Your task to perform on an android device: Open CNN.com Image 0: 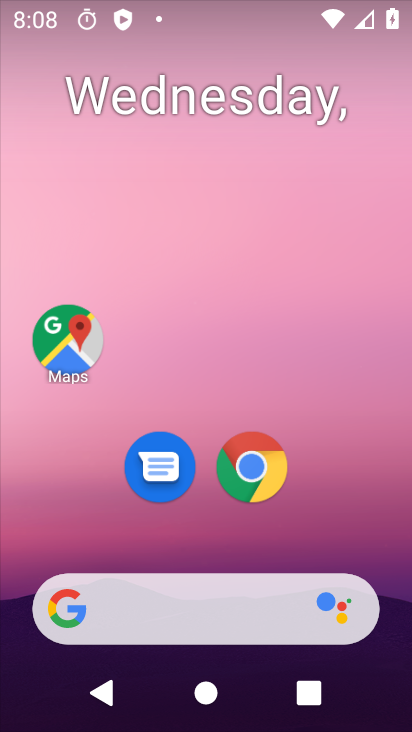
Step 0: click (240, 469)
Your task to perform on an android device: Open CNN.com Image 1: 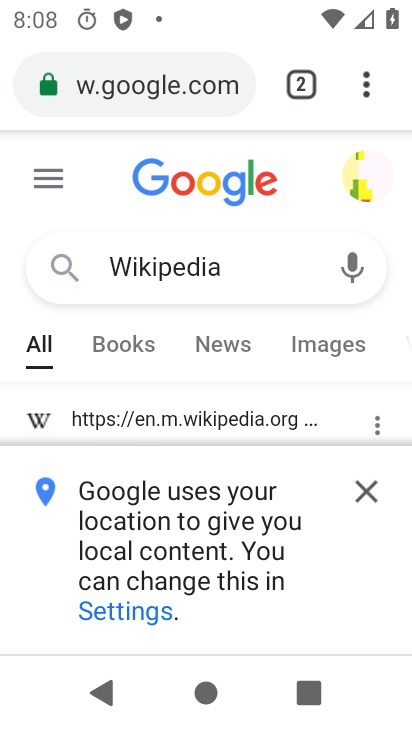
Step 1: click (231, 271)
Your task to perform on an android device: Open CNN.com Image 2: 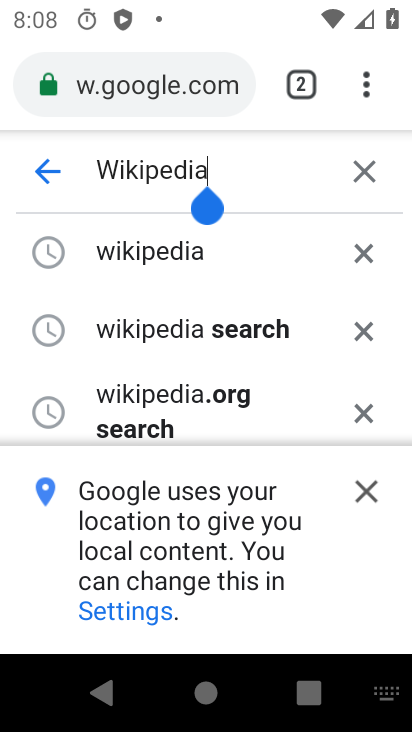
Step 2: click (361, 160)
Your task to perform on an android device: Open CNN.com Image 3: 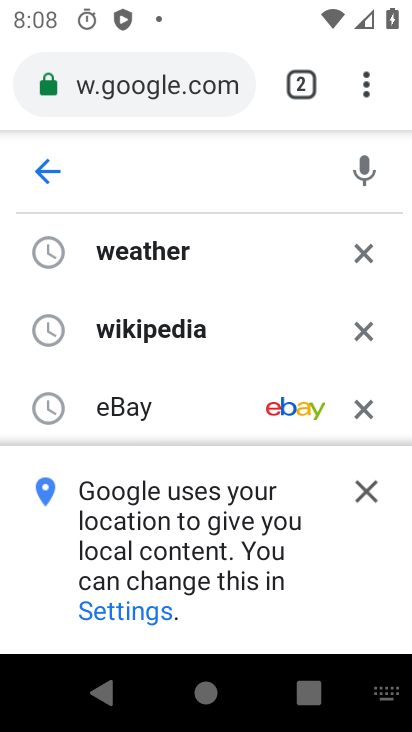
Step 3: type "CNN.com"
Your task to perform on an android device: Open CNN.com Image 4: 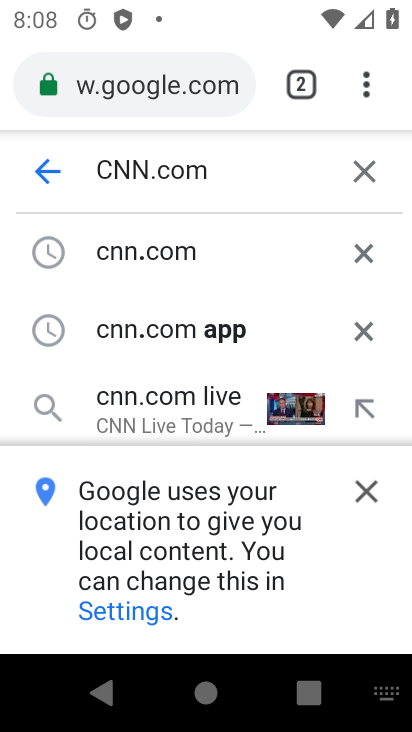
Step 4: click (126, 166)
Your task to perform on an android device: Open CNN.com Image 5: 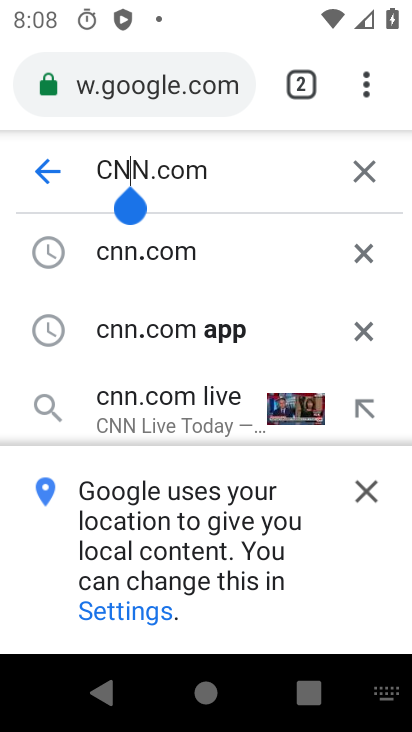
Step 5: click (222, 178)
Your task to perform on an android device: Open CNN.com Image 6: 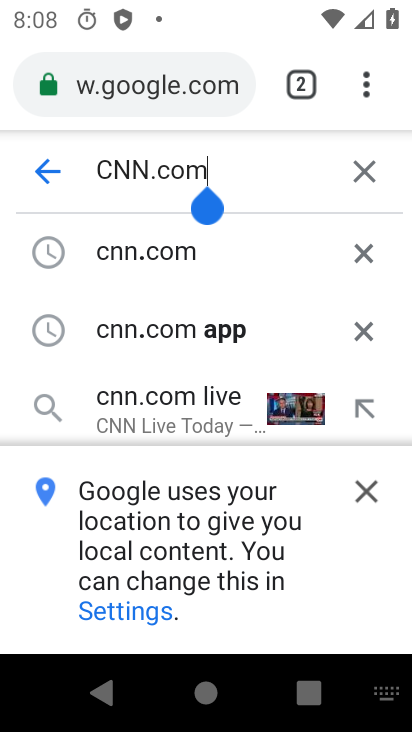
Step 6: click (255, 173)
Your task to perform on an android device: Open CNN.com Image 7: 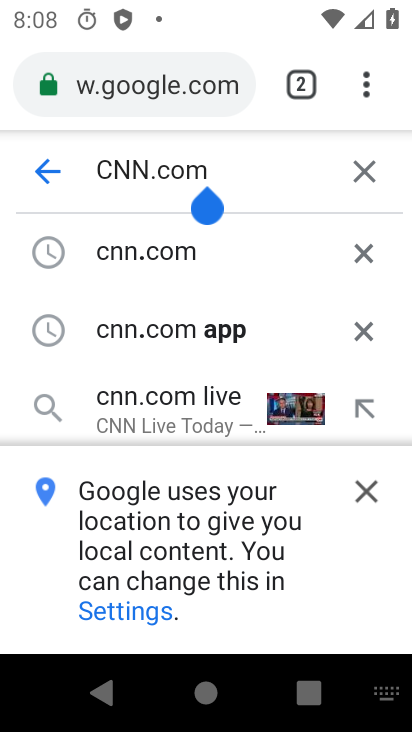
Step 7: click (132, 161)
Your task to perform on an android device: Open CNN.com Image 8: 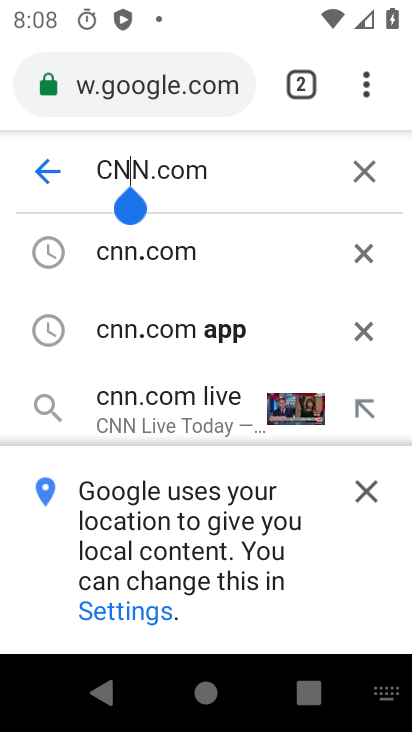
Step 8: click (121, 245)
Your task to perform on an android device: Open CNN.com Image 9: 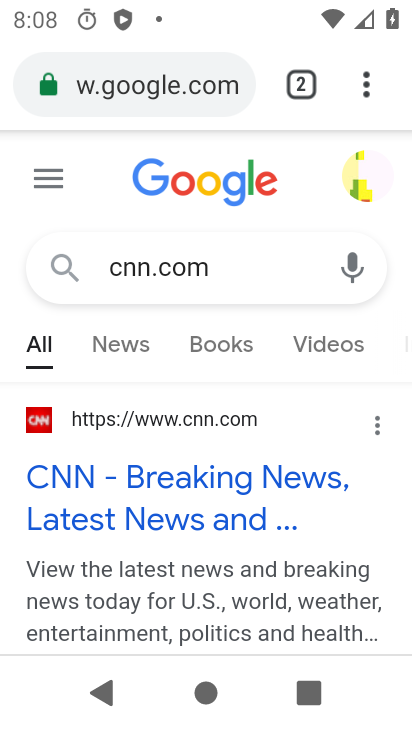
Step 9: task complete